Your task to perform on an android device: Go to Android settings Image 0: 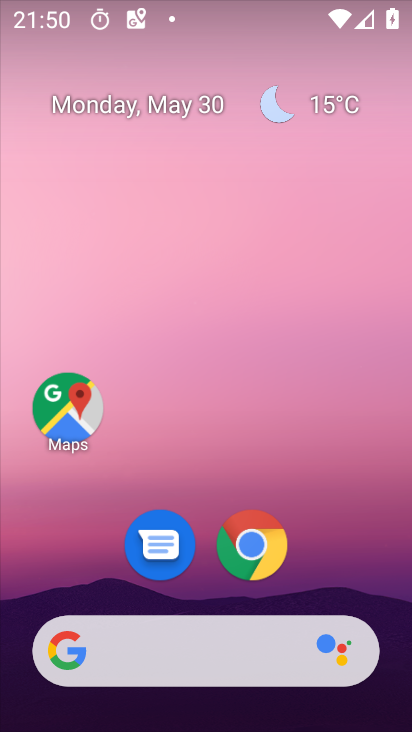
Step 0: drag from (350, 560) to (309, 158)
Your task to perform on an android device: Go to Android settings Image 1: 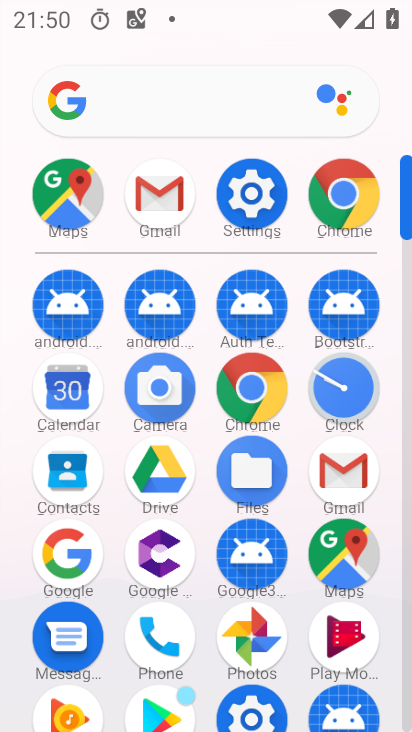
Step 1: click (252, 190)
Your task to perform on an android device: Go to Android settings Image 2: 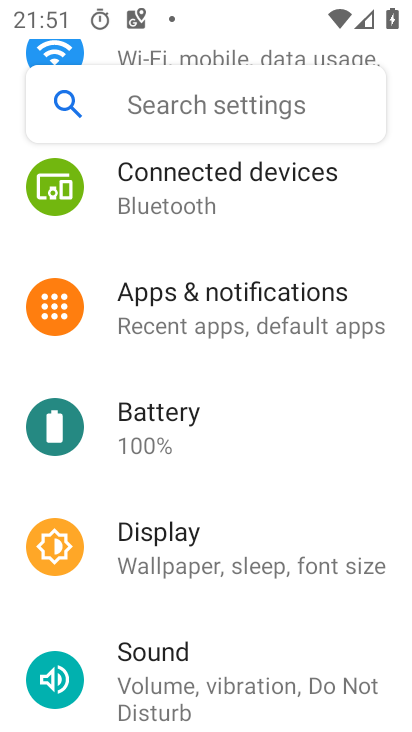
Step 2: drag from (299, 637) to (328, 328)
Your task to perform on an android device: Go to Android settings Image 3: 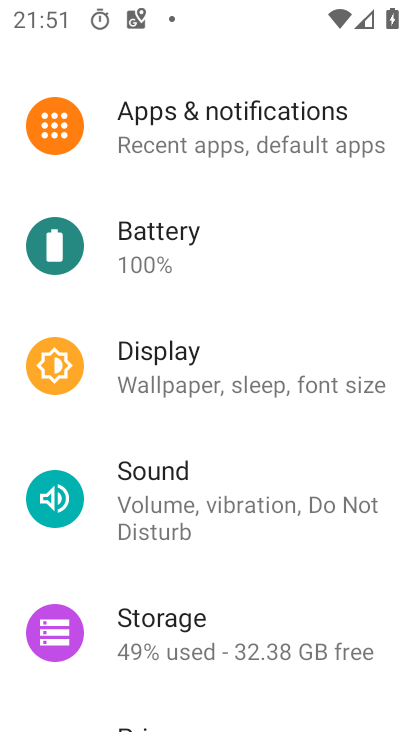
Step 3: drag from (289, 681) to (303, 261)
Your task to perform on an android device: Go to Android settings Image 4: 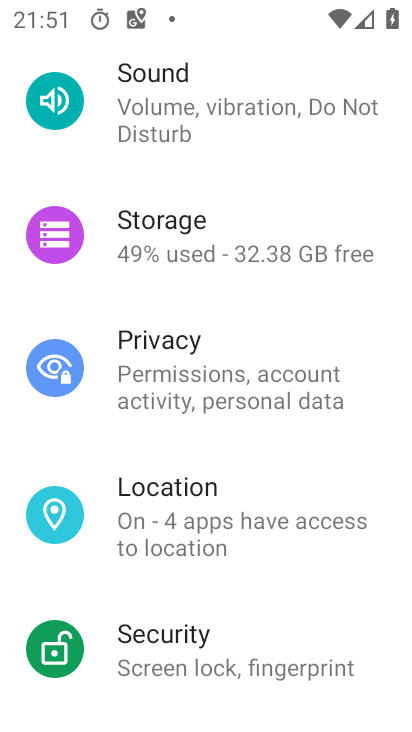
Step 4: drag from (296, 602) to (305, 290)
Your task to perform on an android device: Go to Android settings Image 5: 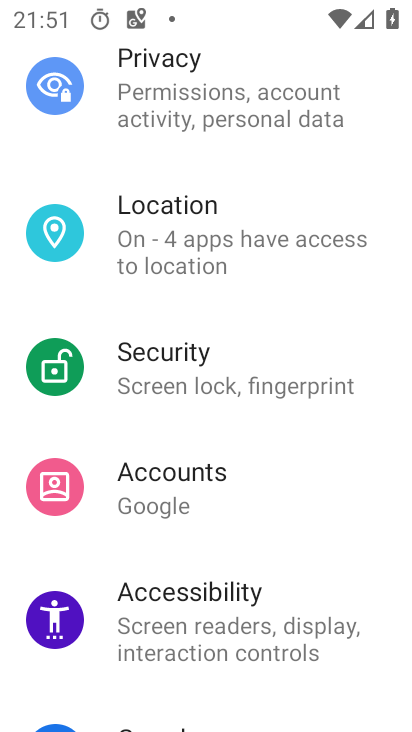
Step 5: drag from (257, 683) to (265, 246)
Your task to perform on an android device: Go to Android settings Image 6: 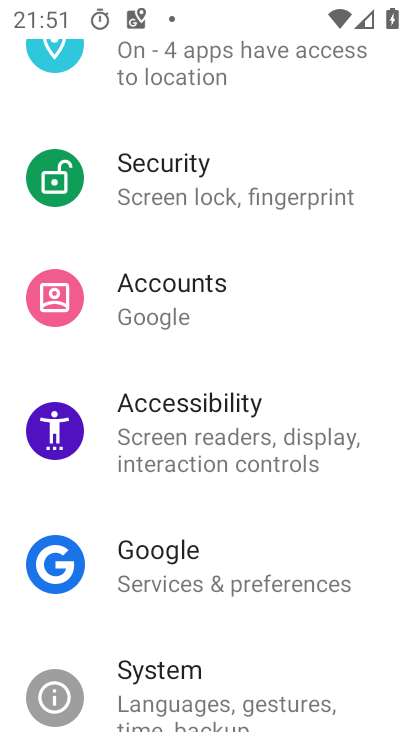
Step 6: drag from (265, 630) to (274, 311)
Your task to perform on an android device: Go to Android settings Image 7: 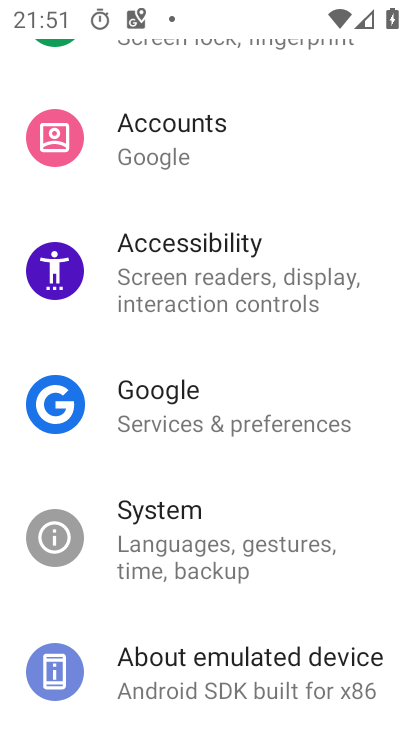
Step 7: click (266, 665)
Your task to perform on an android device: Go to Android settings Image 8: 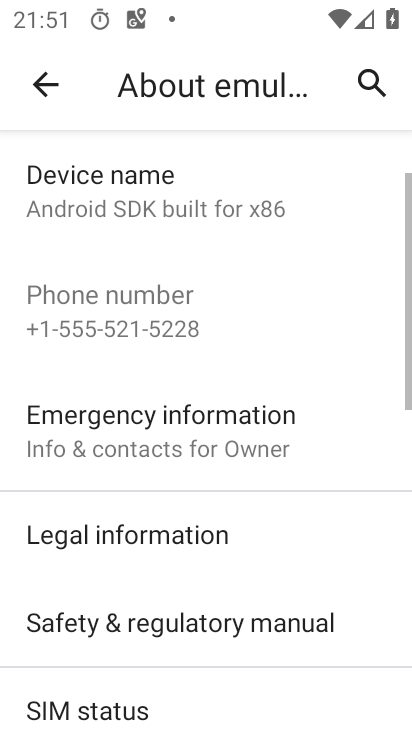
Step 8: drag from (283, 661) to (296, 286)
Your task to perform on an android device: Go to Android settings Image 9: 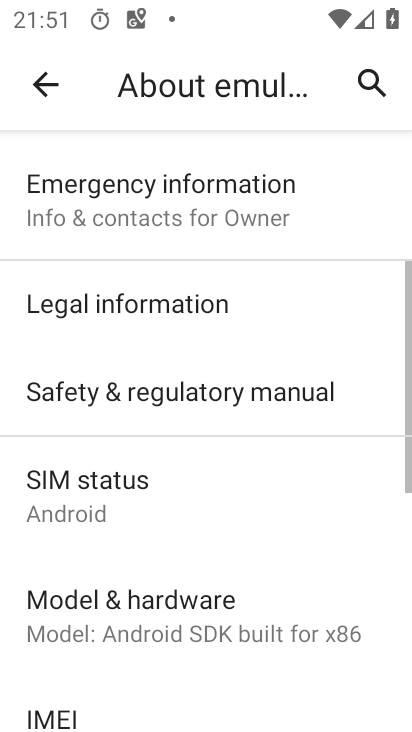
Step 9: drag from (224, 676) to (235, 319)
Your task to perform on an android device: Go to Android settings Image 10: 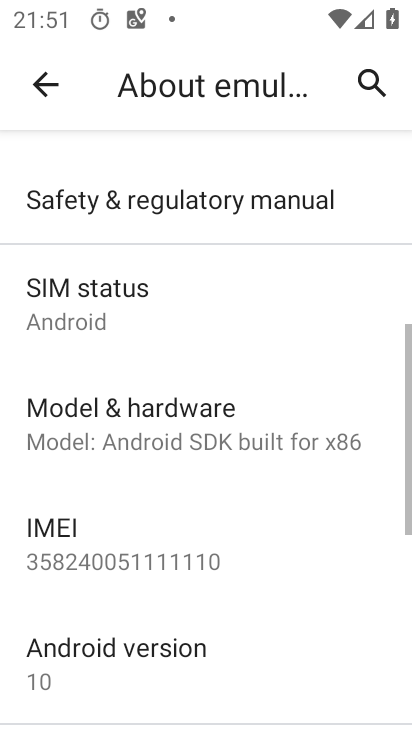
Step 10: click (163, 652)
Your task to perform on an android device: Go to Android settings Image 11: 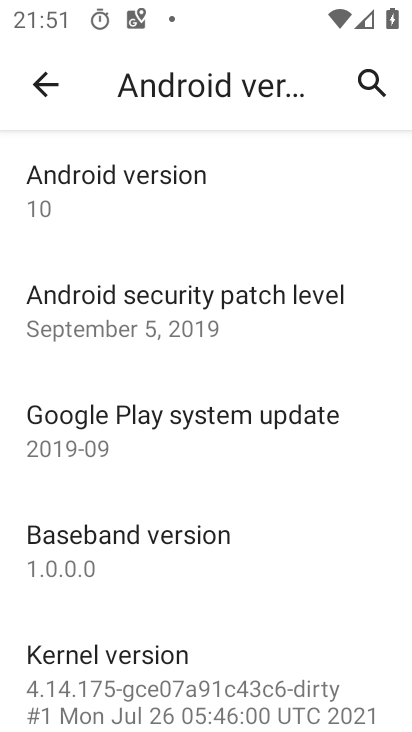
Step 11: task complete